Your task to perform on an android device: Go to internet settings Image 0: 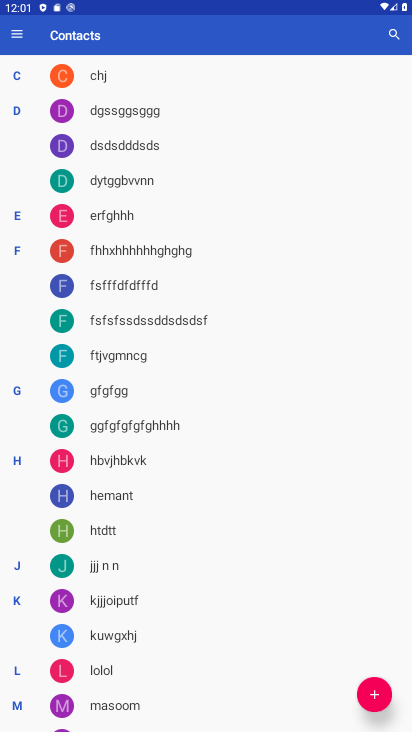
Step 0: press home button
Your task to perform on an android device: Go to internet settings Image 1: 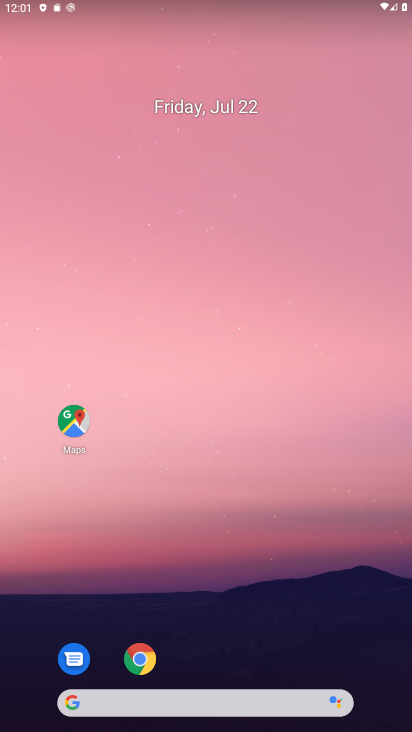
Step 1: drag from (266, 646) to (224, 5)
Your task to perform on an android device: Go to internet settings Image 2: 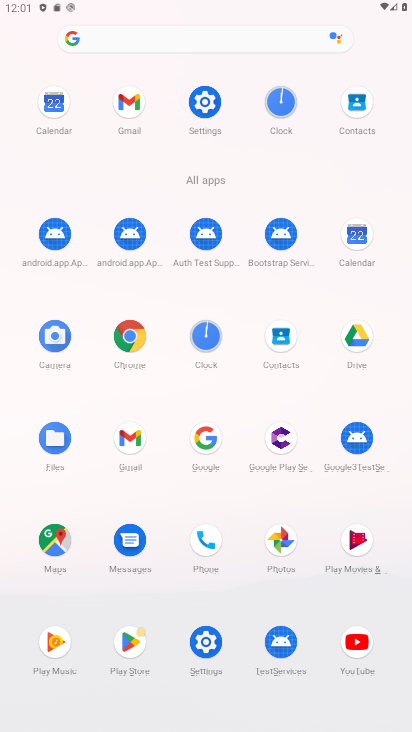
Step 2: click (199, 118)
Your task to perform on an android device: Go to internet settings Image 3: 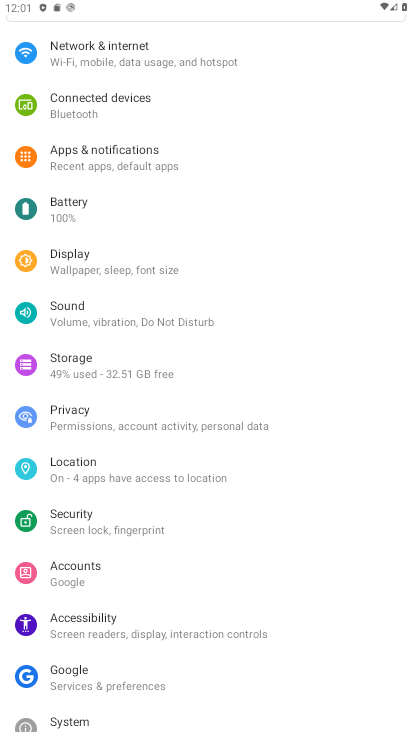
Step 3: click (145, 48)
Your task to perform on an android device: Go to internet settings Image 4: 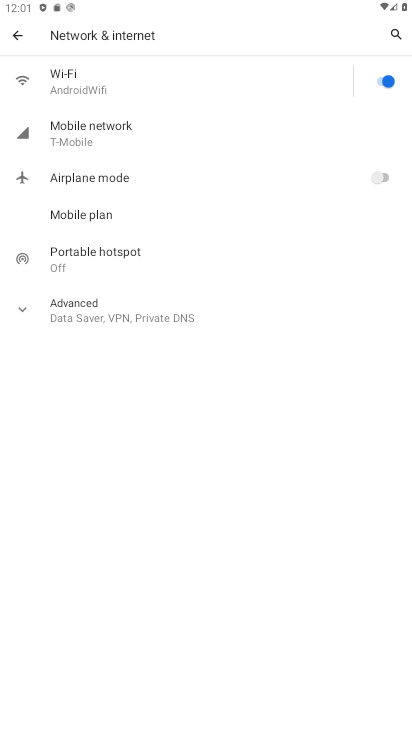
Step 4: task complete